Your task to perform on an android device: Find coffee shops on Maps Image 0: 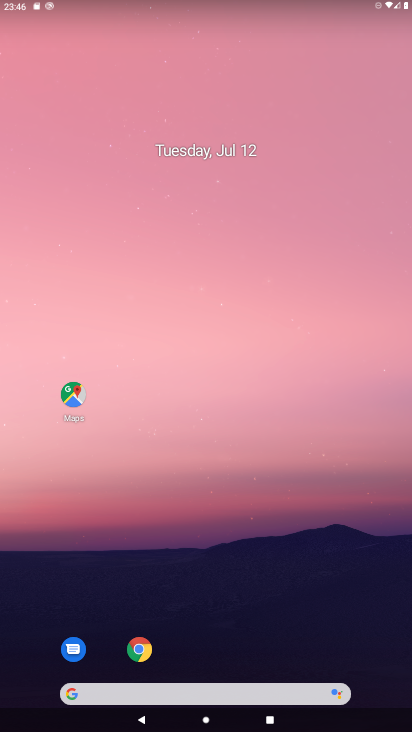
Step 0: click (73, 392)
Your task to perform on an android device: Find coffee shops on Maps Image 1: 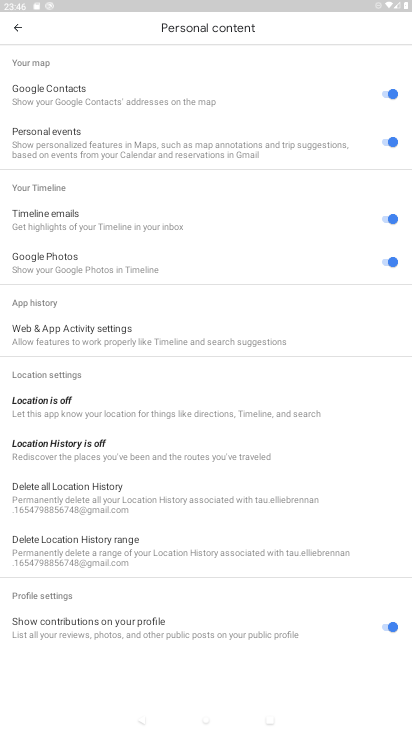
Step 1: press back button
Your task to perform on an android device: Find coffee shops on Maps Image 2: 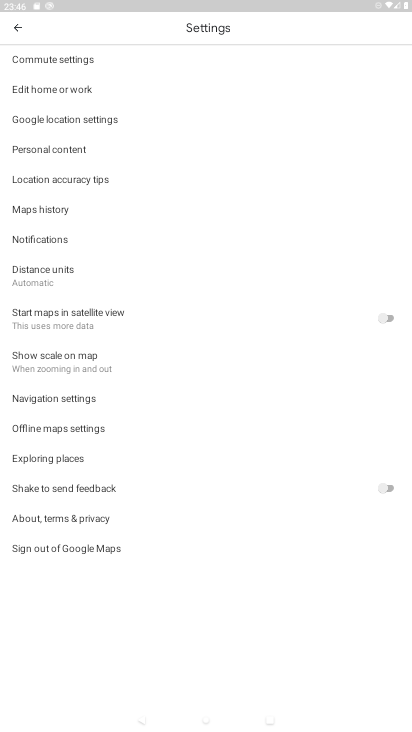
Step 2: press back button
Your task to perform on an android device: Find coffee shops on Maps Image 3: 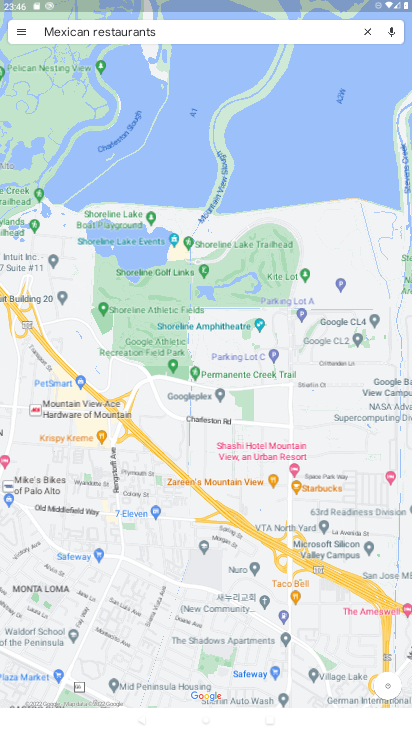
Step 3: click (365, 33)
Your task to perform on an android device: Find coffee shops on Maps Image 4: 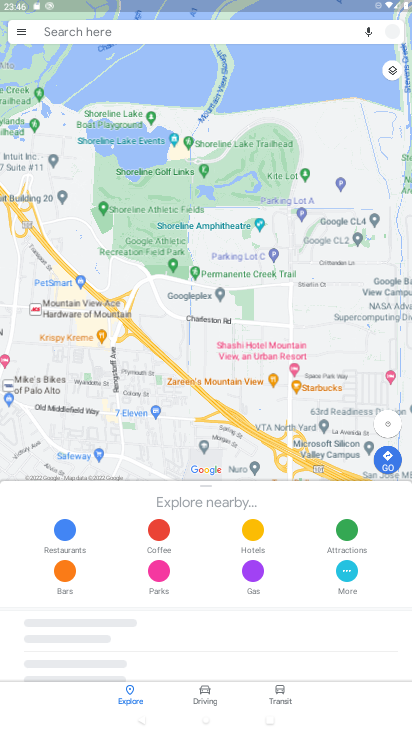
Step 4: click (151, 32)
Your task to perform on an android device: Find coffee shops on Maps Image 5: 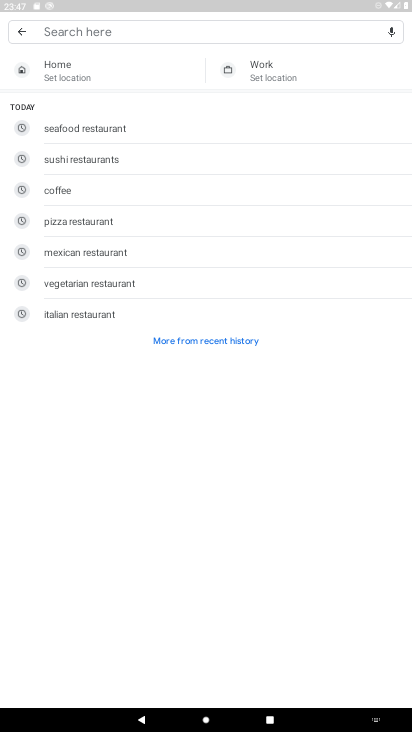
Step 5: type "coffee shop"
Your task to perform on an android device: Find coffee shops on Maps Image 6: 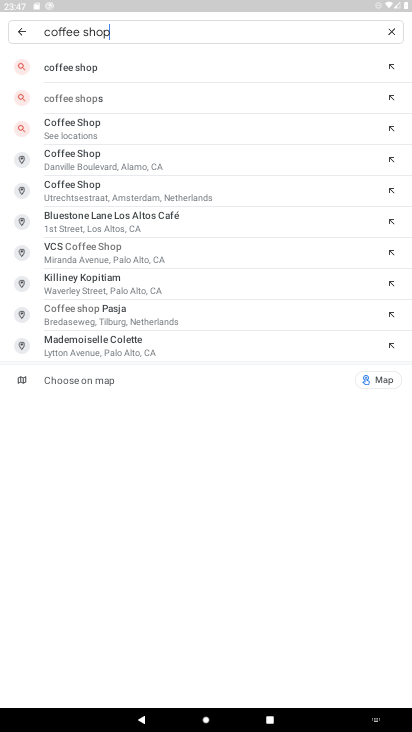
Step 6: click (62, 66)
Your task to perform on an android device: Find coffee shops on Maps Image 7: 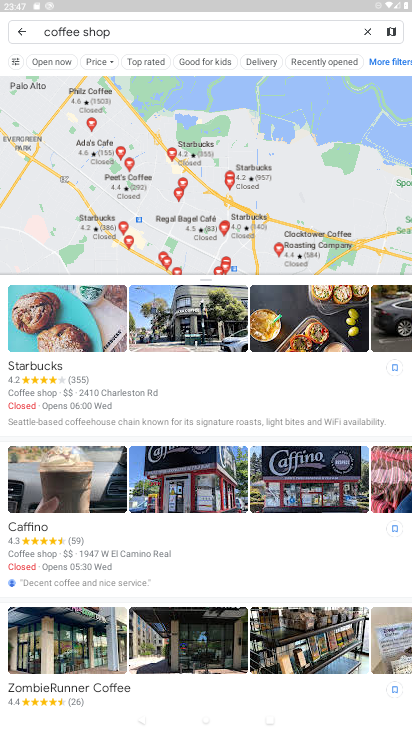
Step 7: task complete